Your task to perform on an android device: Open the map Image 0: 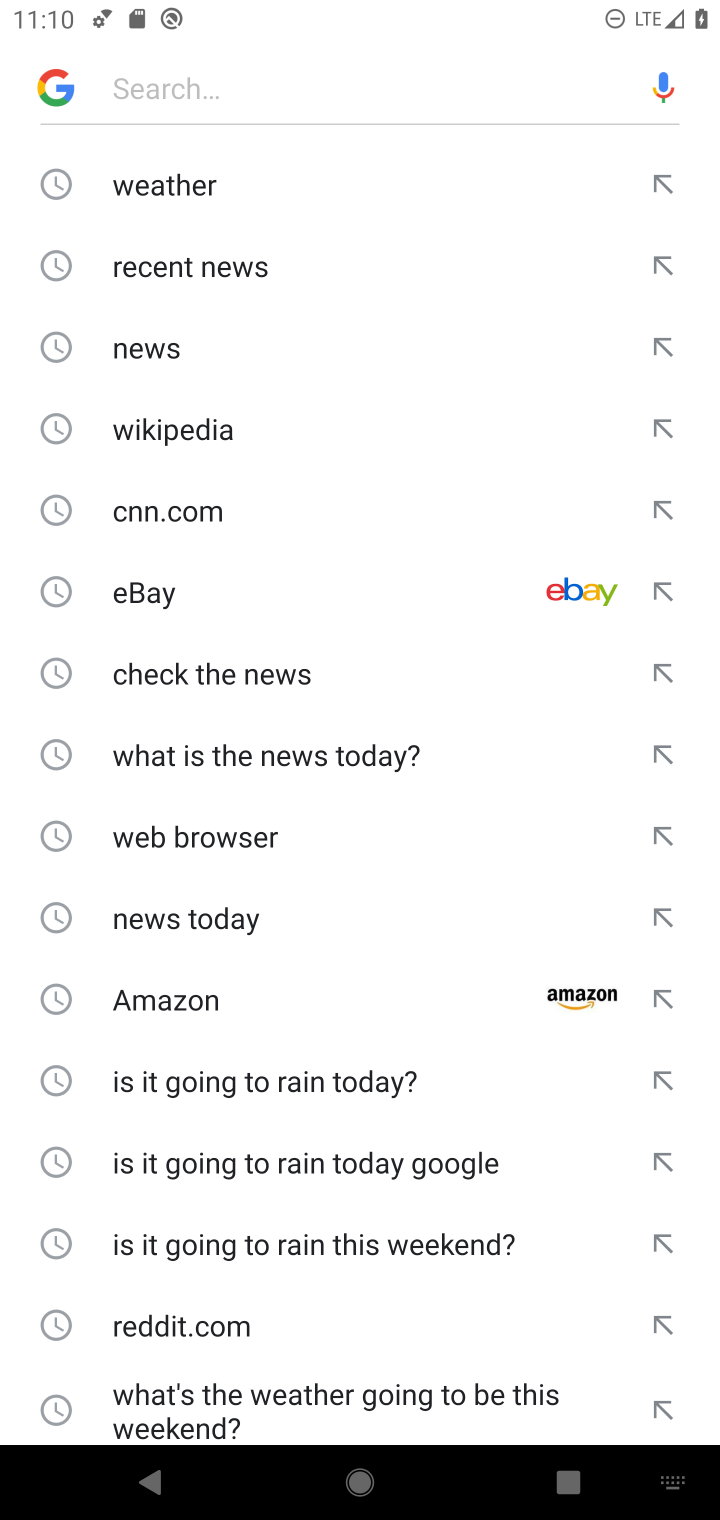
Step 0: press home button
Your task to perform on an android device: Open the map Image 1: 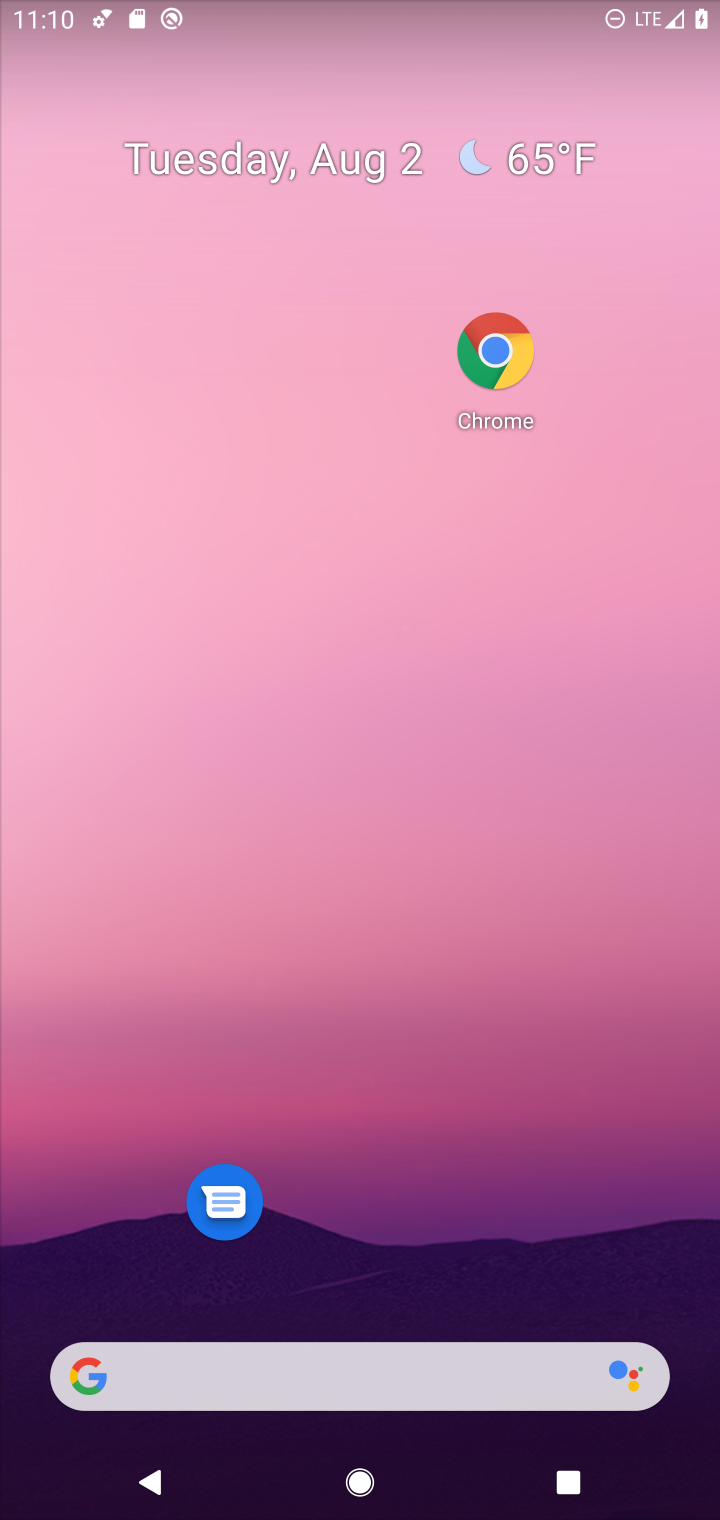
Step 1: drag from (332, 1249) to (297, 101)
Your task to perform on an android device: Open the map Image 2: 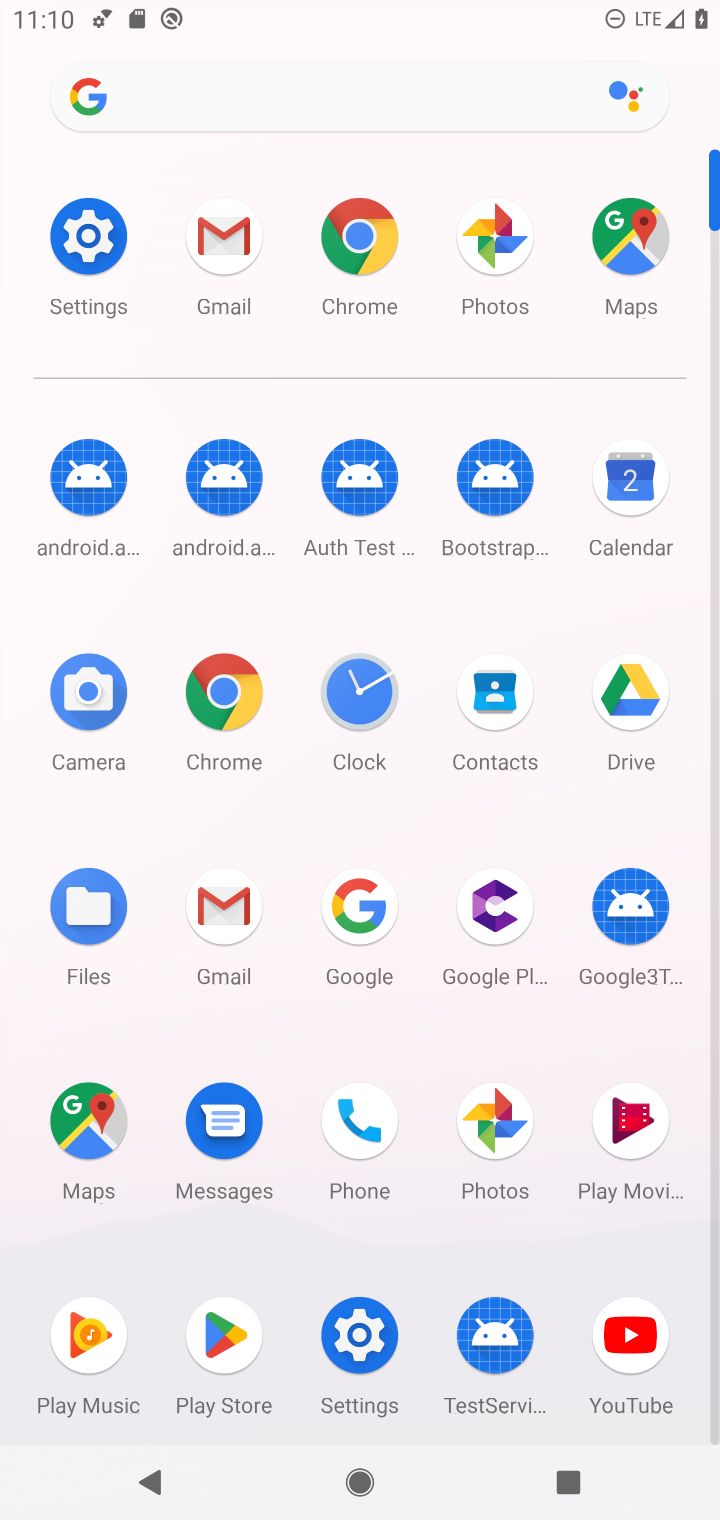
Step 2: click (643, 247)
Your task to perform on an android device: Open the map Image 3: 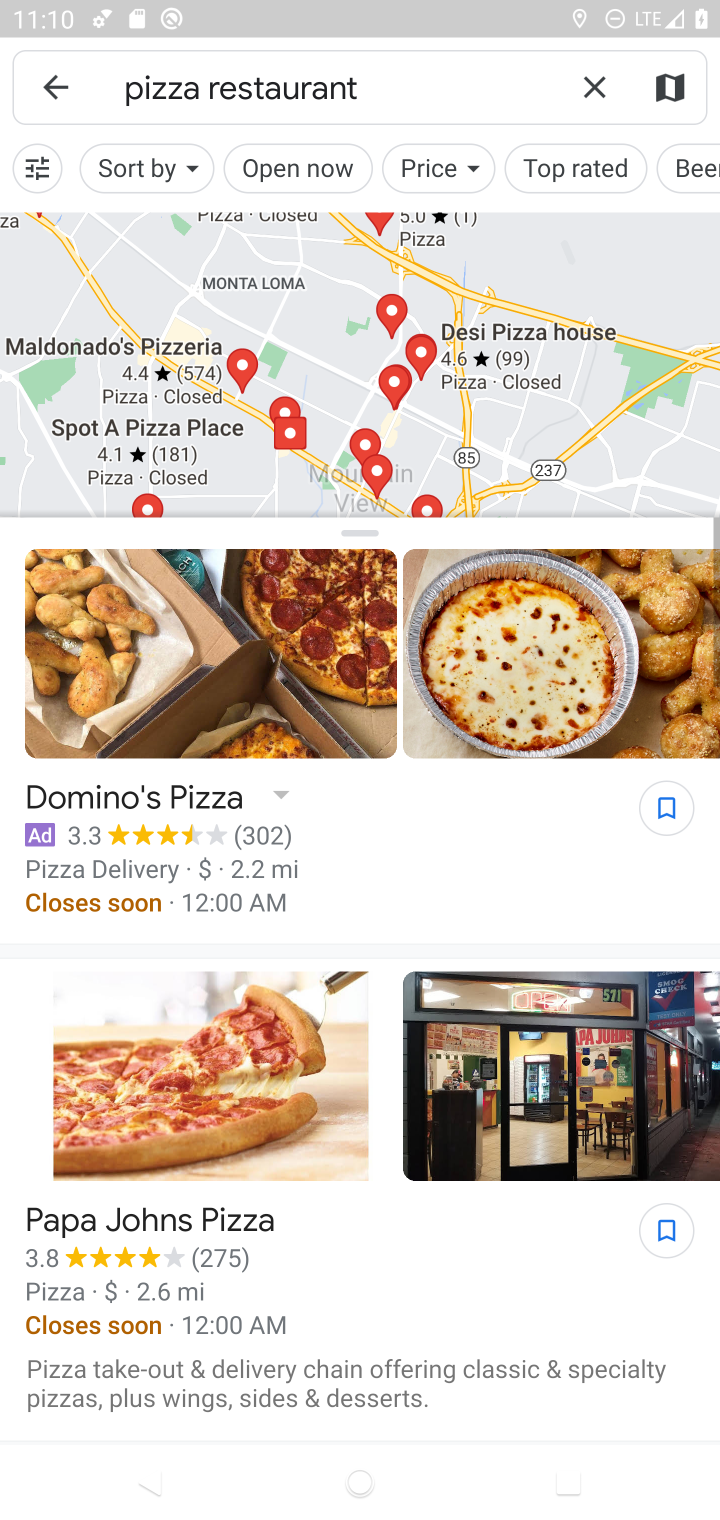
Step 3: task complete